Your task to perform on an android device: Do I have any events today? Image 0: 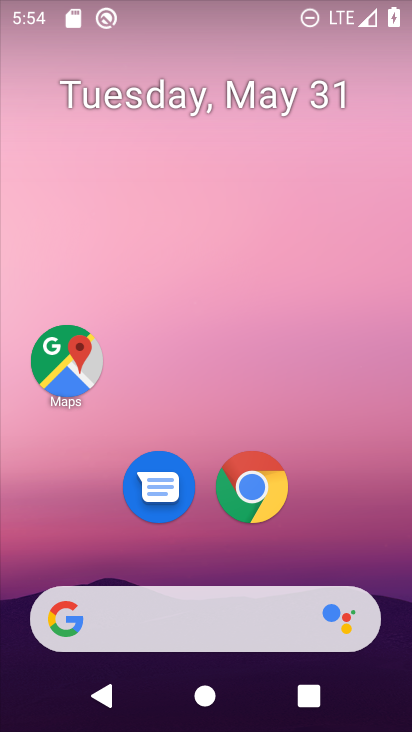
Step 0: drag from (344, 540) to (247, 132)
Your task to perform on an android device: Do I have any events today? Image 1: 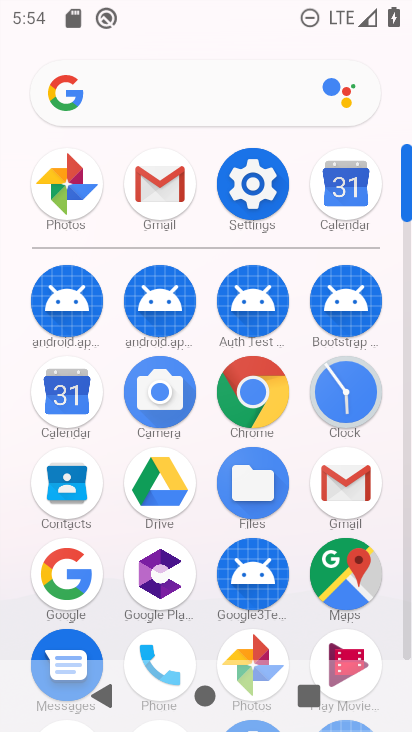
Step 1: click (59, 406)
Your task to perform on an android device: Do I have any events today? Image 2: 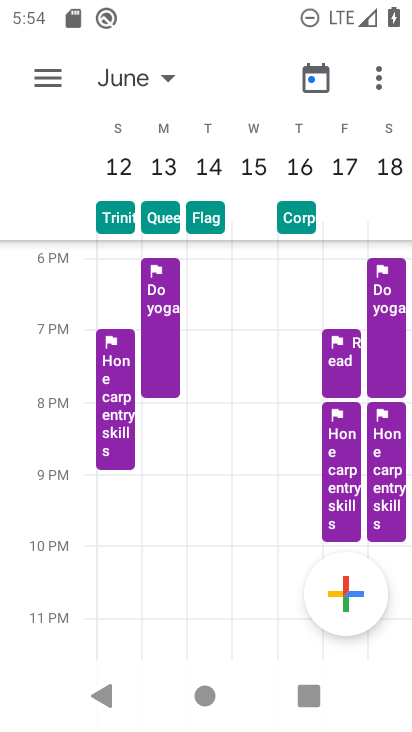
Step 2: click (176, 80)
Your task to perform on an android device: Do I have any events today? Image 3: 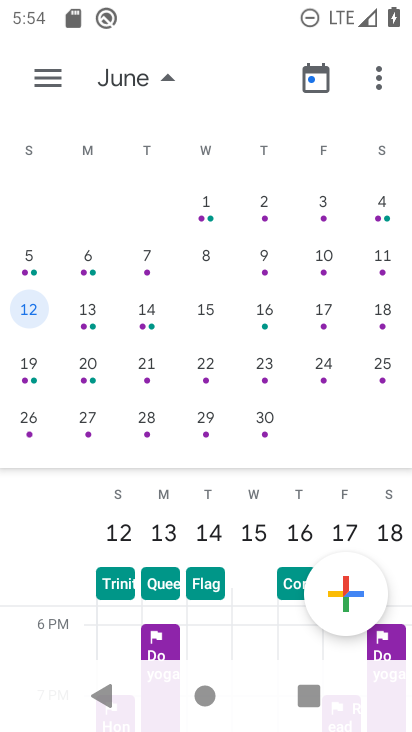
Step 3: click (27, 268)
Your task to perform on an android device: Do I have any events today? Image 4: 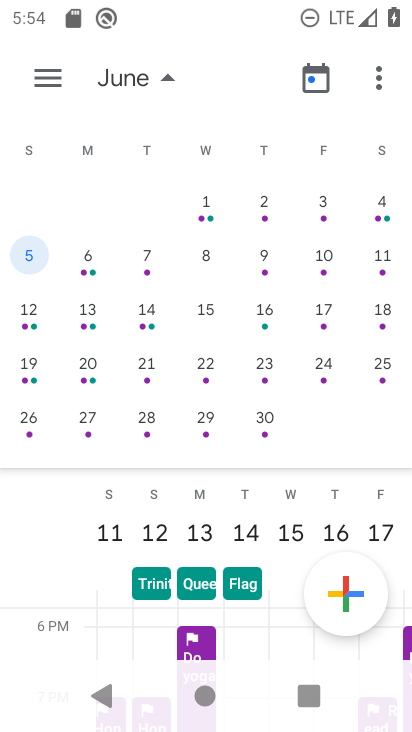
Step 4: drag from (27, 268) to (389, 288)
Your task to perform on an android device: Do I have any events today? Image 5: 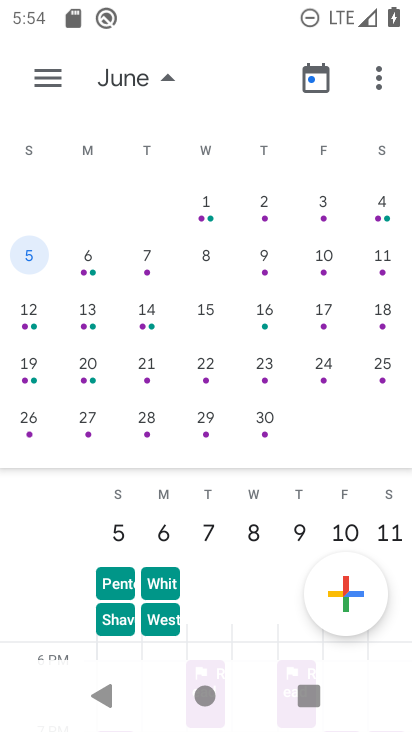
Step 5: drag from (96, 332) to (382, 264)
Your task to perform on an android device: Do I have any events today? Image 6: 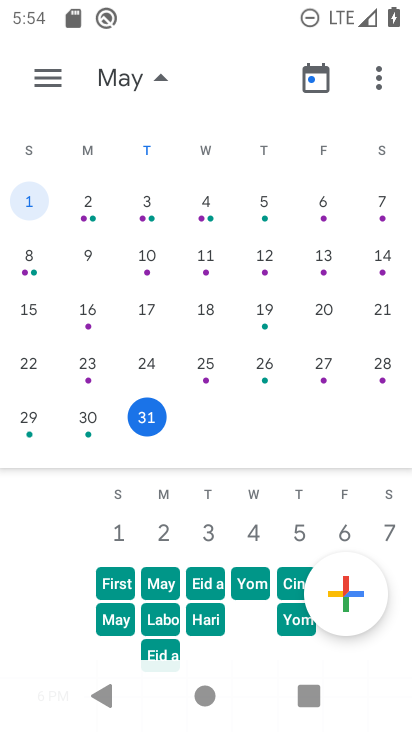
Step 6: click (149, 420)
Your task to perform on an android device: Do I have any events today? Image 7: 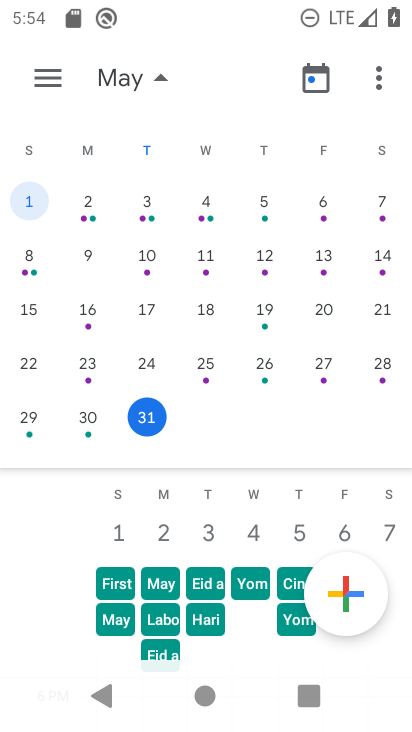
Step 7: click (149, 420)
Your task to perform on an android device: Do I have any events today? Image 8: 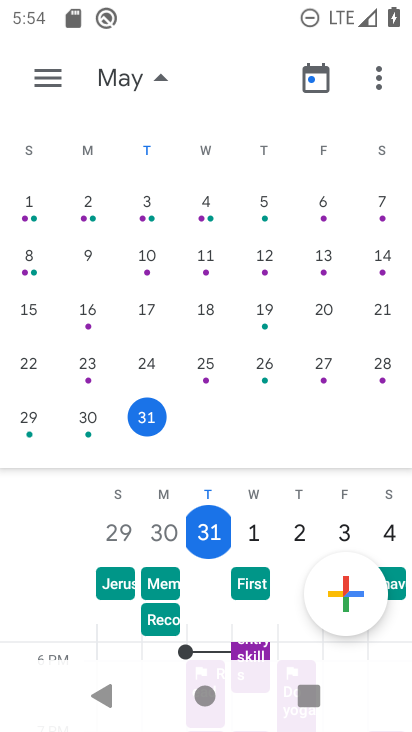
Step 8: click (223, 531)
Your task to perform on an android device: Do I have any events today? Image 9: 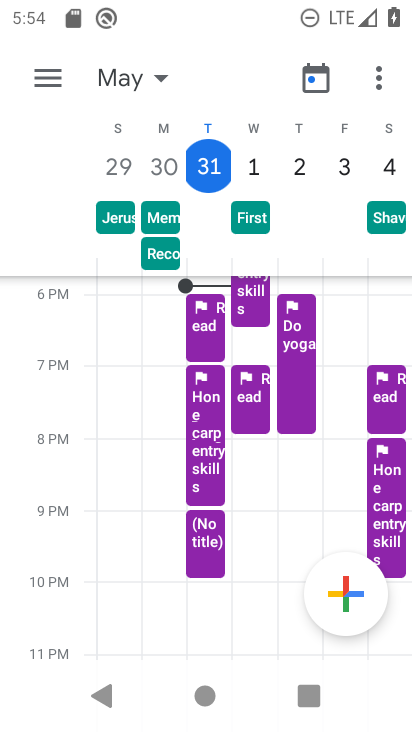
Step 9: click (219, 159)
Your task to perform on an android device: Do I have any events today? Image 10: 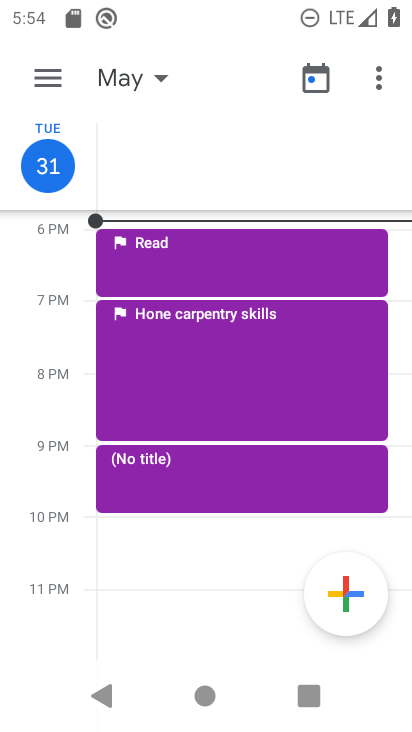
Step 10: task complete